Your task to perform on an android device: Open Google Maps and go to "Timeline" Image 0: 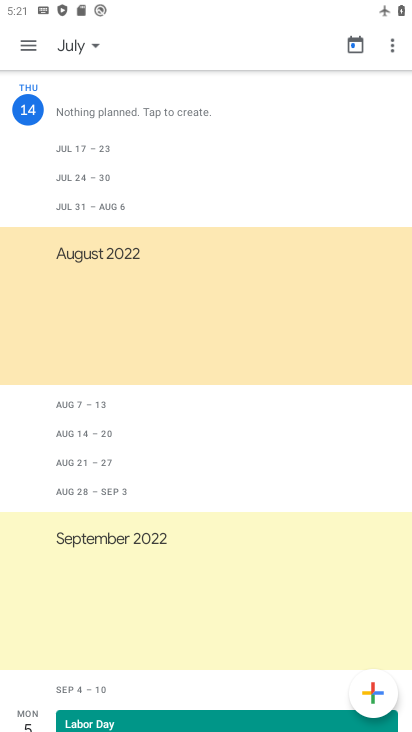
Step 0: press home button
Your task to perform on an android device: Open Google Maps and go to "Timeline" Image 1: 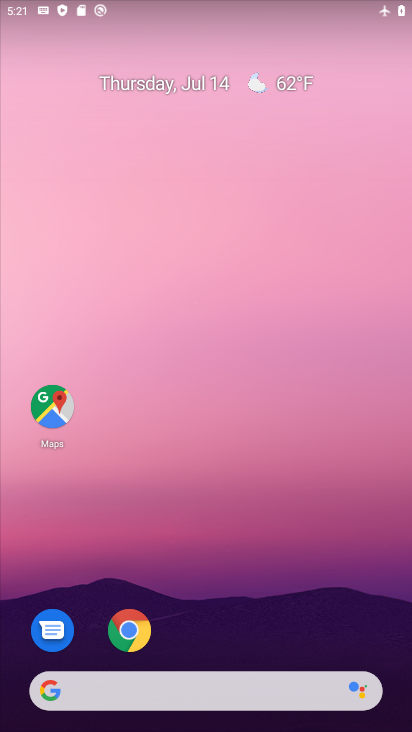
Step 1: click (46, 397)
Your task to perform on an android device: Open Google Maps and go to "Timeline" Image 2: 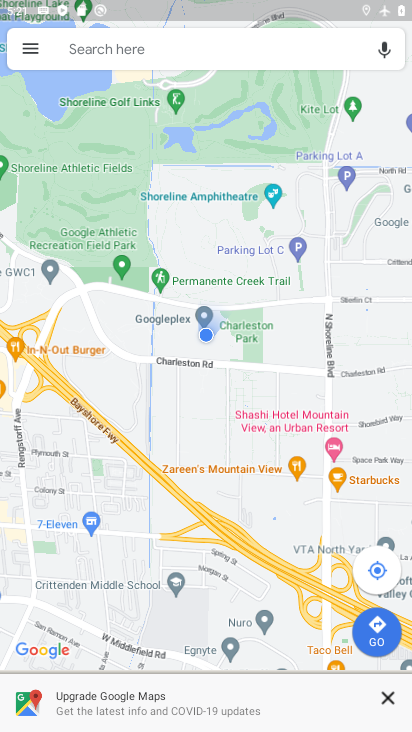
Step 2: click (35, 53)
Your task to perform on an android device: Open Google Maps and go to "Timeline" Image 3: 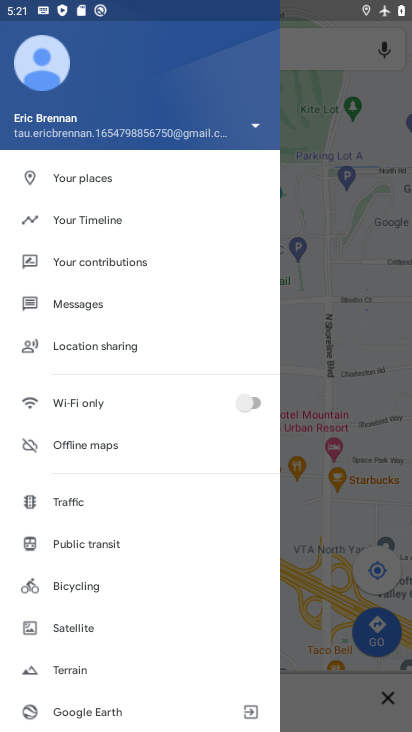
Step 3: click (145, 221)
Your task to perform on an android device: Open Google Maps and go to "Timeline" Image 4: 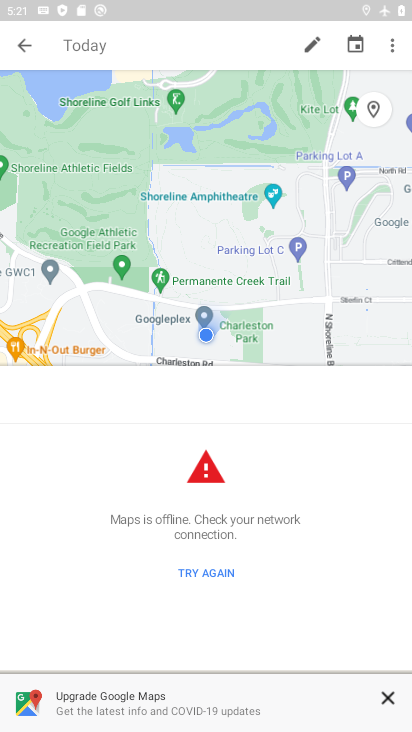
Step 4: drag from (246, 7) to (133, 688)
Your task to perform on an android device: Open Google Maps and go to "Timeline" Image 5: 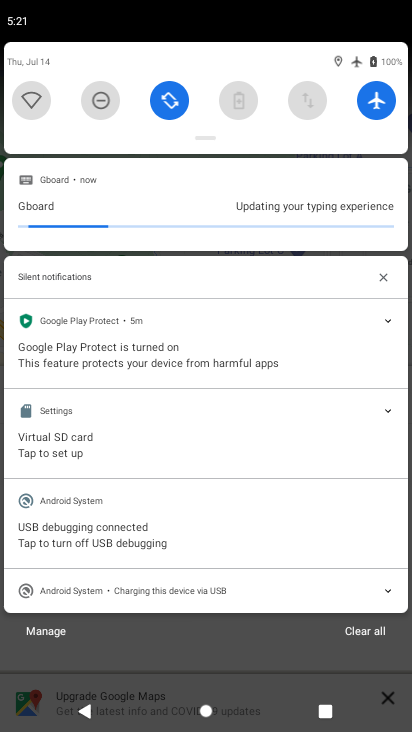
Step 5: click (368, 101)
Your task to perform on an android device: Open Google Maps and go to "Timeline" Image 6: 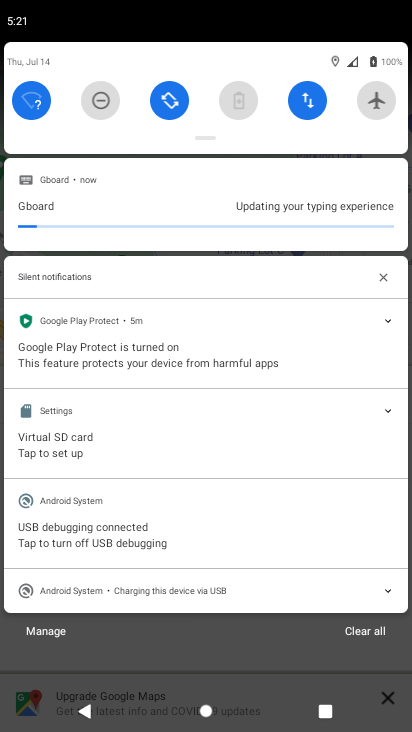
Step 6: task complete